Your task to perform on an android device: Search for "bose soundlink" on ebay.com, select the first entry, add it to the cart, then select checkout. Image 0: 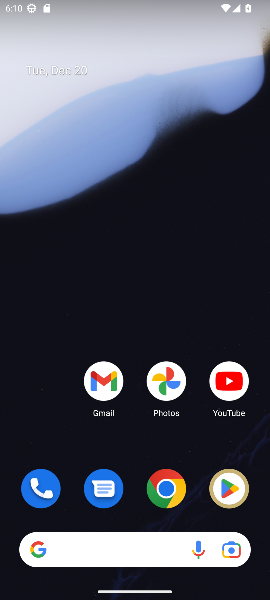
Step 0: press home button
Your task to perform on an android device: Search for "bose soundlink" on ebay.com, select the first entry, add it to the cart, then select checkout. Image 1: 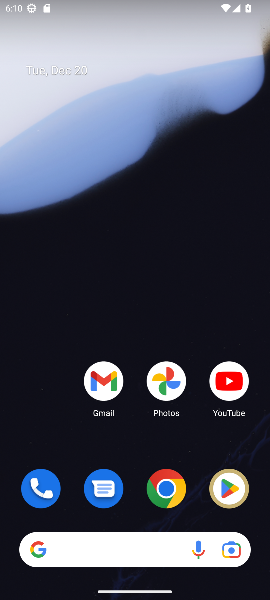
Step 1: drag from (65, 458) to (51, 53)
Your task to perform on an android device: Search for "bose soundlink" on ebay.com, select the first entry, add it to the cart, then select checkout. Image 2: 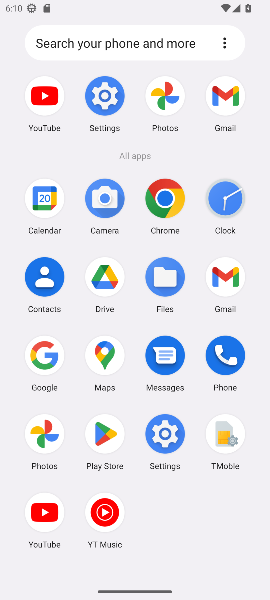
Step 2: click (38, 353)
Your task to perform on an android device: Search for "bose soundlink" on ebay.com, select the first entry, add it to the cart, then select checkout. Image 3: 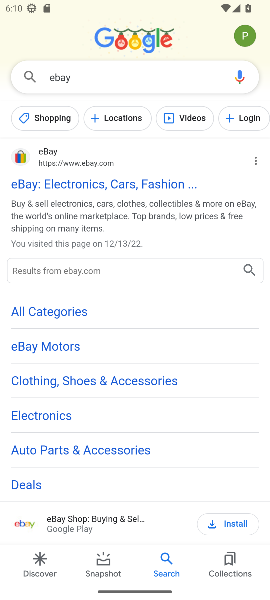
Step 3: click (96, 75)
Your task to perform on an android device: Search for "bose soundlink" on ebay.com, select the first entry, add it to the cart, then select checkout. Image 4: 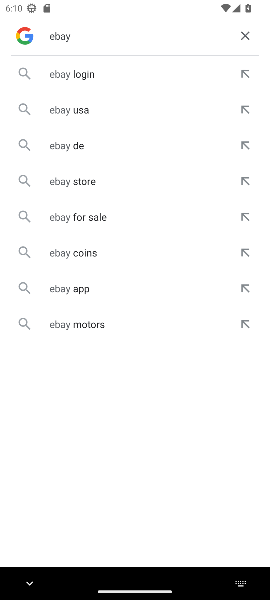
Step 4: click (241, 28)
Your task to perform on an android device: Search for "bose soundlink" on ebay.com, select the first entry, add it to the cart, then select checkout. Image 5: 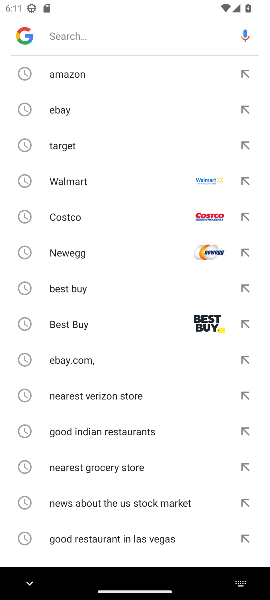
Step 5: type "ebay.com"
Your task to perform on an android device: Search for "bose soundlink" on ebay.com, select the first entry, add it to the cart, then select checkout. Image 6: 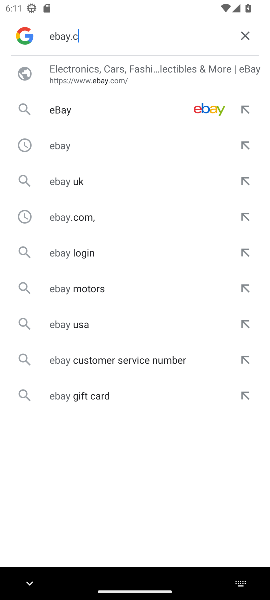
Step 6: press enter
Your task to perform on an android device: Search for "bose soundlink" on ebay.com, select the first entry, add it to the cart, then select checkout. Image 7: 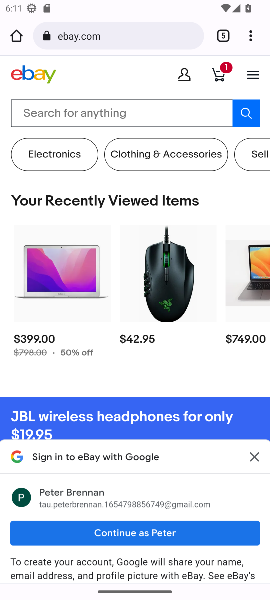
Step 7: click (96, 107)
Your task to perform on an android device: Search for "bose soundlink" on ebay.com, select the first entry, add it to the cart, then select checkout. Image 8: 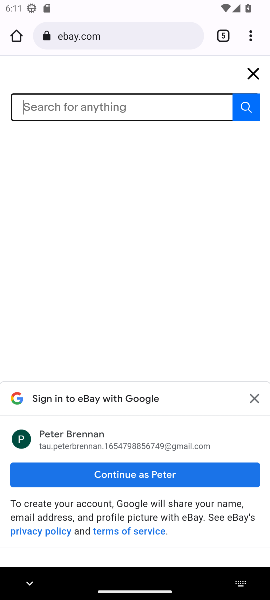
Step 8: type "bose soundlink"
Your task to perform on an android device: Search for "bose soundlink" on ebay.com, select the first entry, add it to the cart, then select checkout. Image 9: 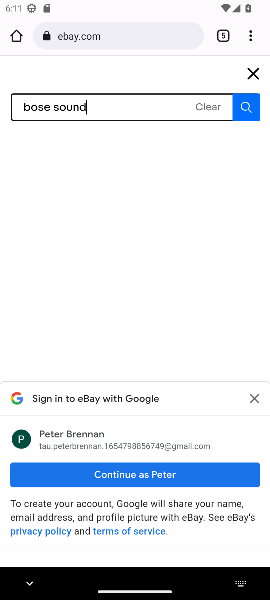
Step 9: press enter
Your task to perform on an android device: Search for "bose soundlink" on ebay.com, select the first entry, add it to the cart, then select checkout. Image 10: 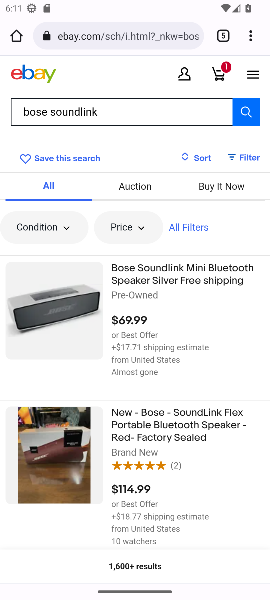
Step 10: click (165, 293)
Your task to perform on an android device: Search for "bose soundlink" on ebay.com, select the first entry, add it to the cart, then select checkout. Image 11: 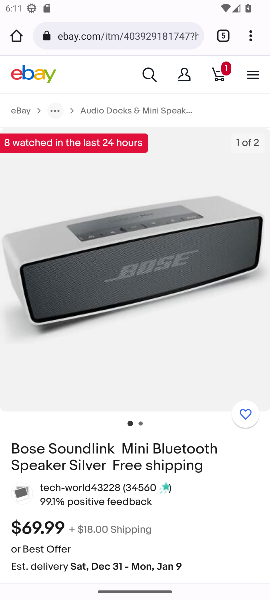
Step 11: drag from (128, 515) to (136, 257)
Your task to perform on an android device: Search for "bose soundlink" on ebay.com, select the first entry, add it to the cart, then select checkout. Image 12: 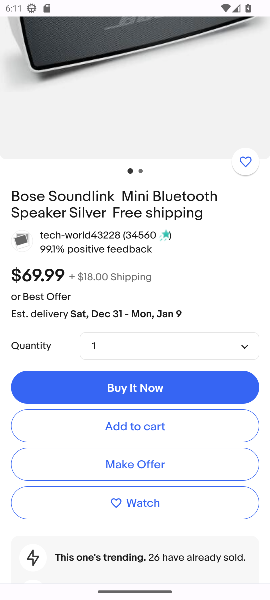
Step 12: click (145, 424)
Your task to perform on an android device: Search for "bose soundlink" on ebay.com, select the first entry, add it to the cart, then select checkout. Image 13: 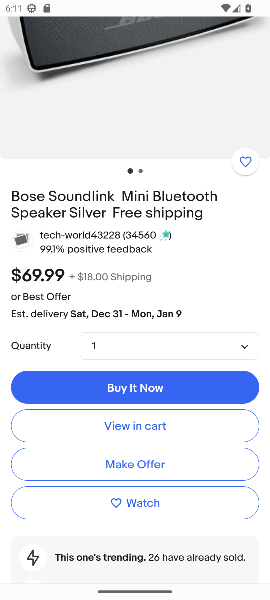
Step 13: click (136, 426)
Your task to perform on an android device: Search for "bose soundlink" on ebay.com, select the first entry, add it to the cart, then select checkout. Image 14: 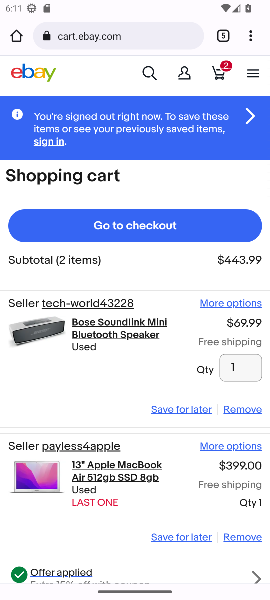
Step 14: click (110, 222)
Your task to perform on an android device: Search for "bose soundlink" on ebay.com, select the first entry, add it to the cart, then select checkout. Image 15: 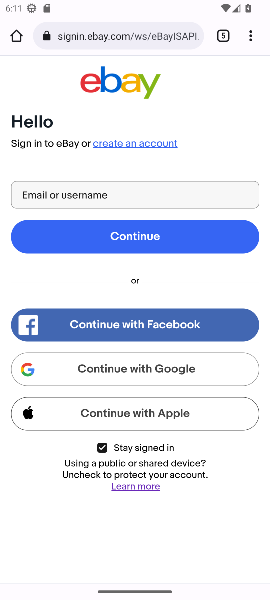
Step 15: task complete